Your task to perform on an android device: check data usage Image 0: 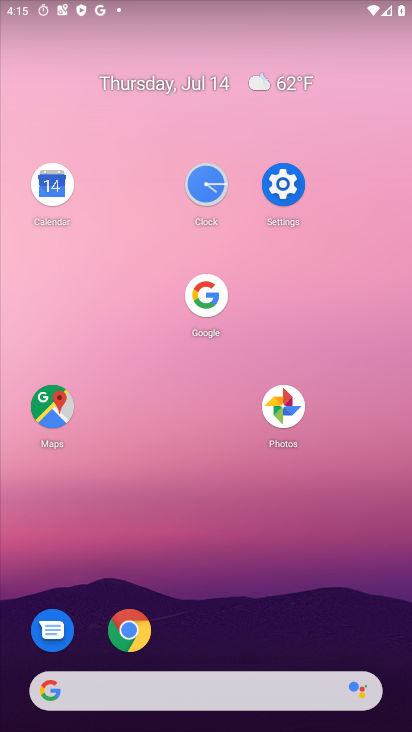
Step 0: click (283, 171)
Your task to perform on an android device: check data usage Image 1: 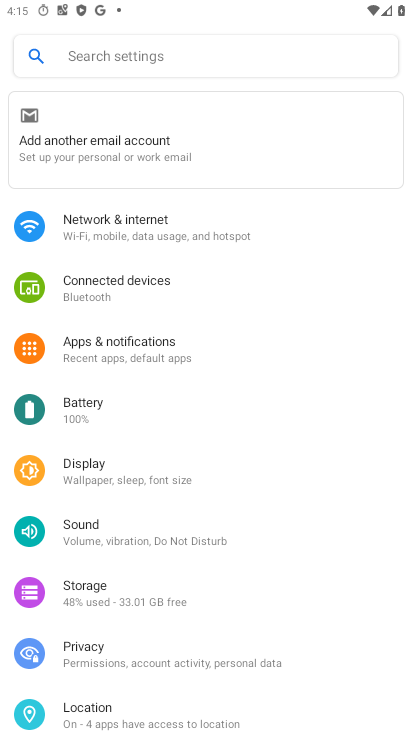
Step 1: click (236, 219)
Your task to perform on an android device: check data usage Image 2: 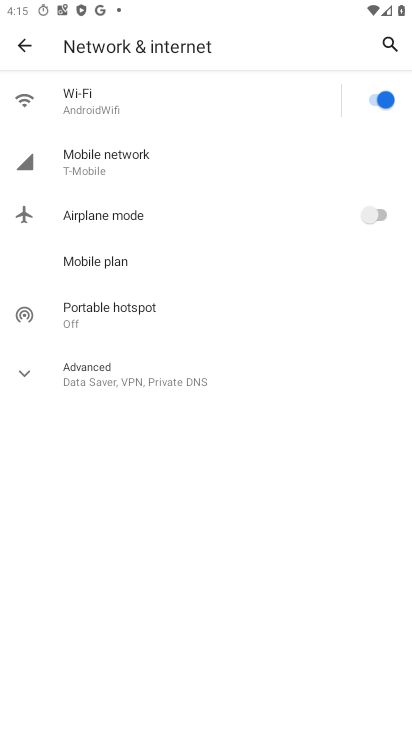
Step 2: click (184, 154)
Your task to perform on an android device: check data usage Image 3: 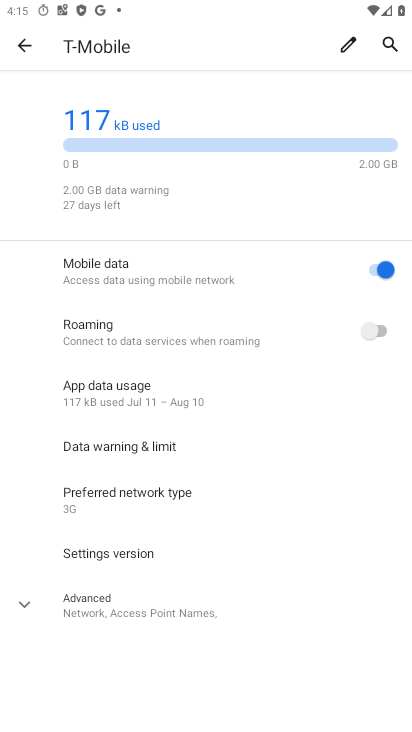
Step 3: task complete